Your task to perform on an android device: What's the weather going to be this weekend? Image 0: 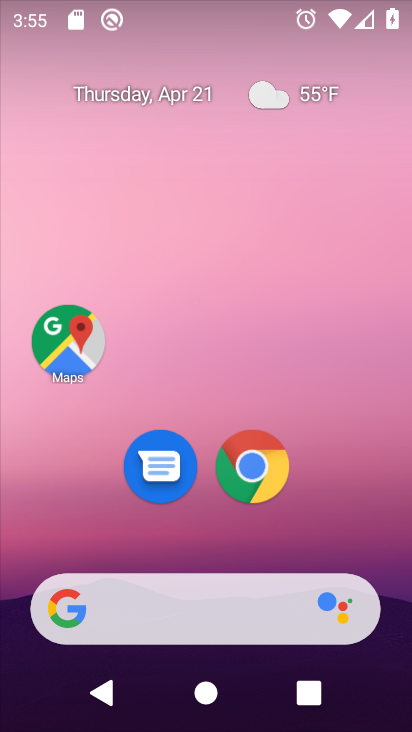
Step 0: drag from (187, 565) to (258, 22)
Your task to perform on an android device: What's the weather going to be this weekend? Image 1: 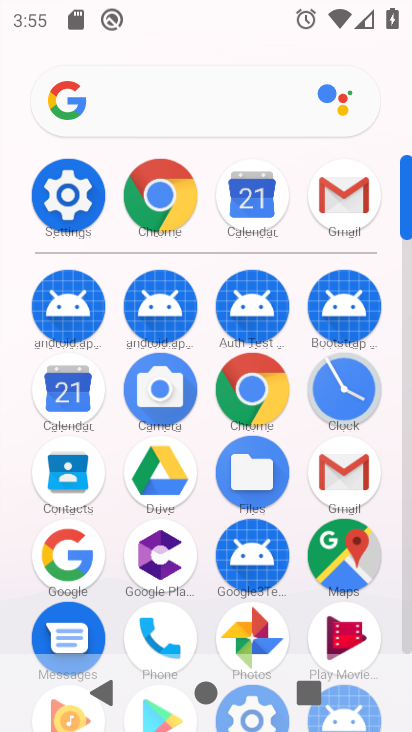
Step 1: click (83, 405)
Your task to perform on an android device: What's the weather going to be this weekend? Image 2: 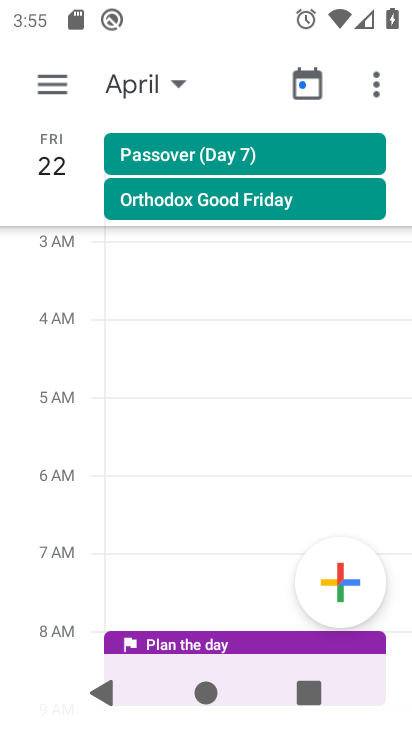
Step 2: task complete